Your task to perform on an android device: empty trash in google photos Image 0: 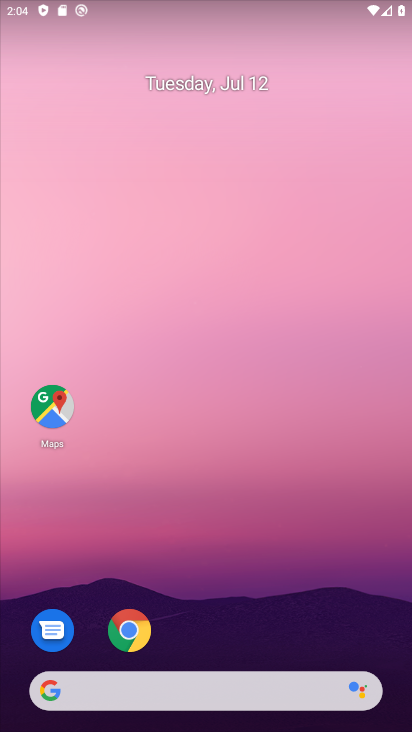
Step 0: drag from (409, 568) to (388, 262)
Your task to perform on an android device: empty trash in google photos Image 1: 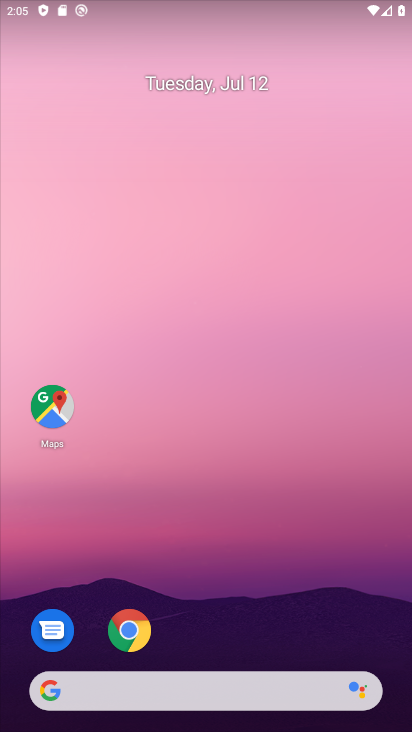
Step 1: drag from (372, 600) to (355, 174)
Your task to perform on an android device: empty trash in google photos Image 2: 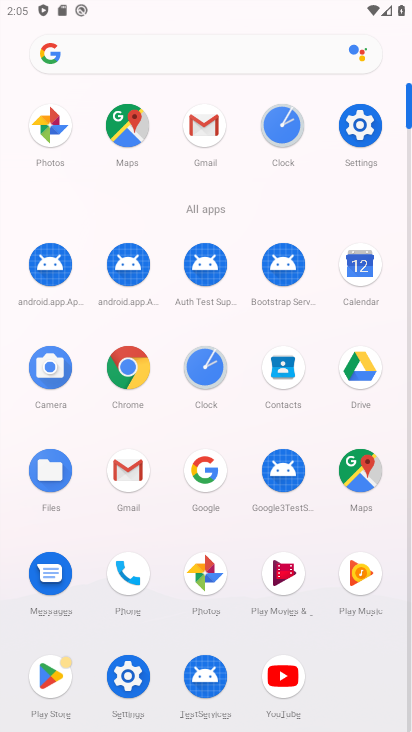
Step 2: click (205, 571)
Your task to perform on an android device: empty trash in google photos Image 3: 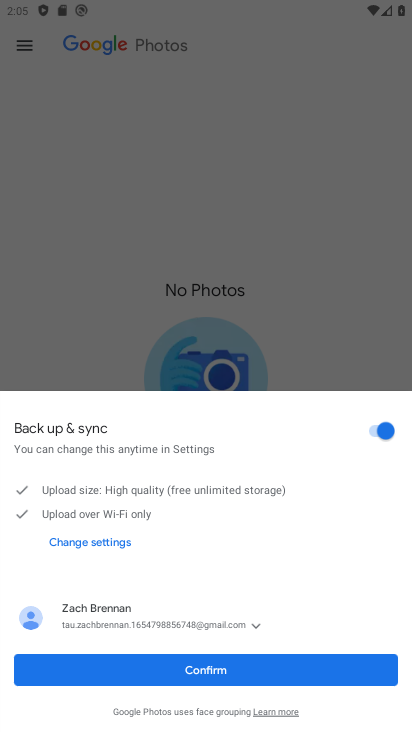
Step 3: click (192, 665)
Your task to perform on an android device: empty trash in google photos Image 4: 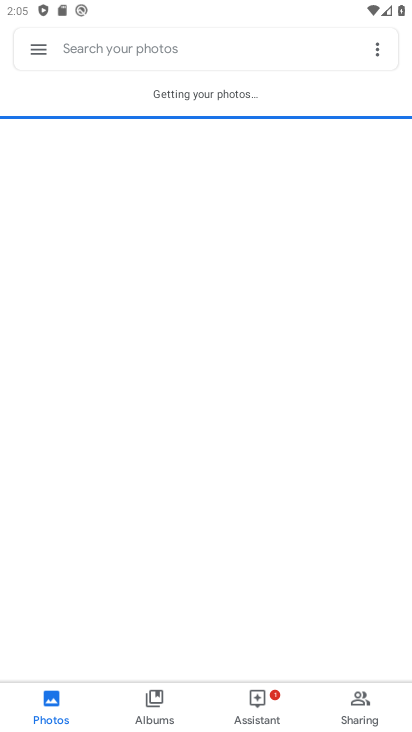
Step 4: click (37, 46)
Your task to perform on an android device: empty trash in google photos Image 5: 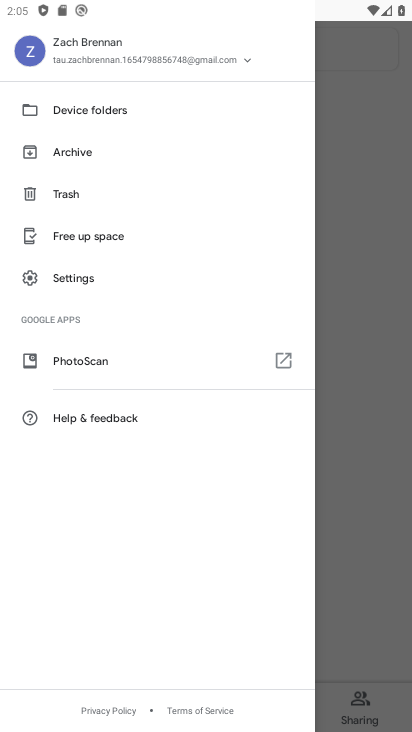
Step 5: click (60, 194)
Your task to perform on an android device: empty trash in google photos Image 6: 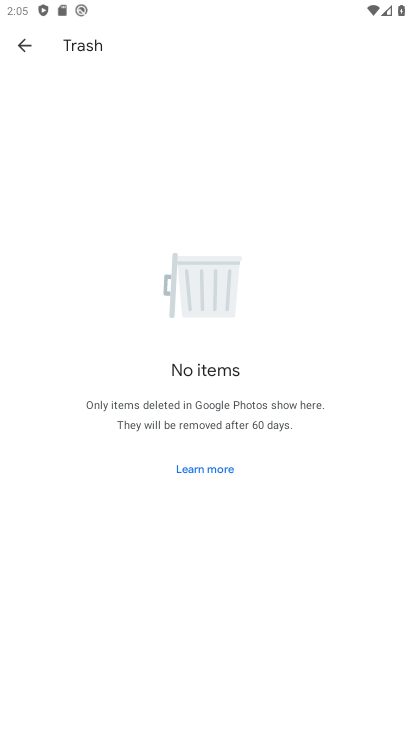
Step 6: task complete